Your task to perform on an android device: Open Maps and search for coffee Image 0: 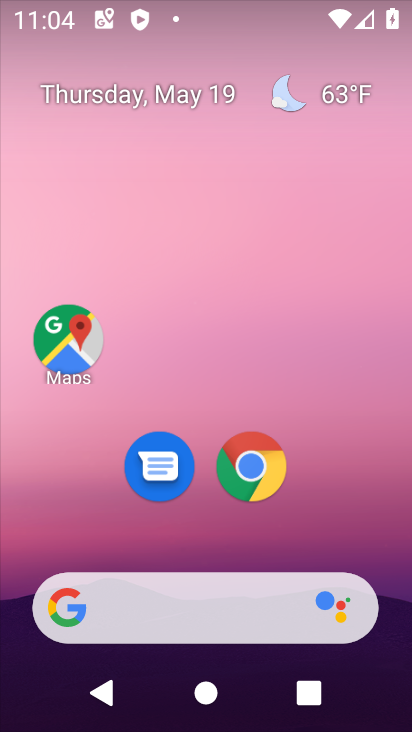
Step 0: drag from (393, 607) to (284, 47)
Your task to perform on an android device: Open Maps and search for coffee Image 1: 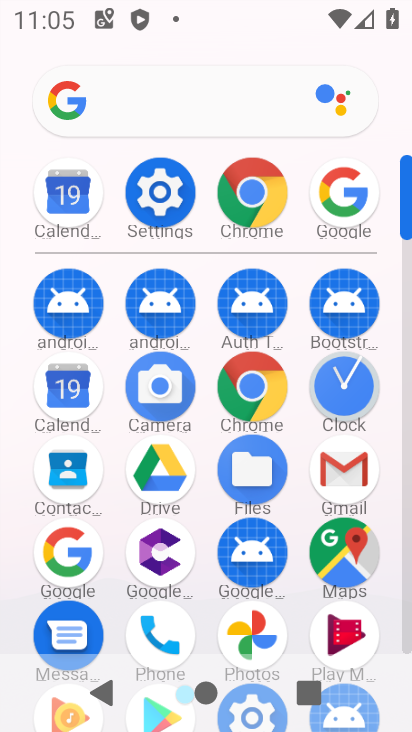
Step 1: click (360, 536)
Your task to perform on an android device: Open Maps and search for coffee Image 2: 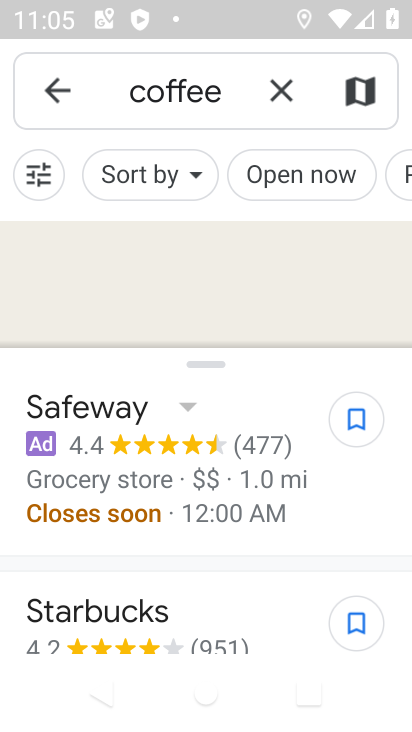
Step 2: task complete